Your task to perform on an android device: open app "Lyft - Rideshare, Bikes, Scooters & Transit" Image 0: 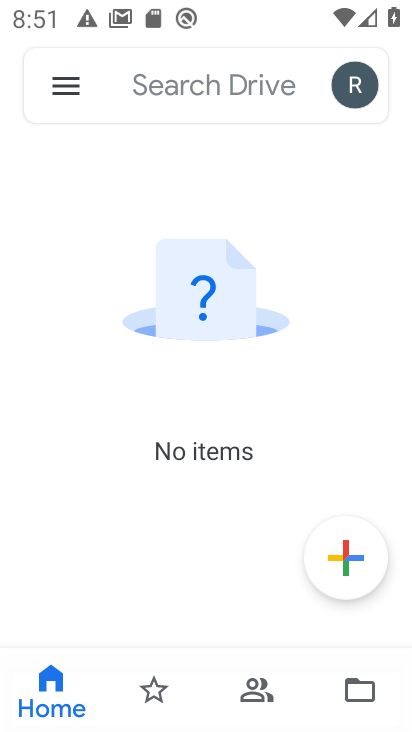
Step 0: press home button
Your task to perform on an android device: open app "Lyft - Rideshare, Bikes, Scooters & Transit" Image 1: 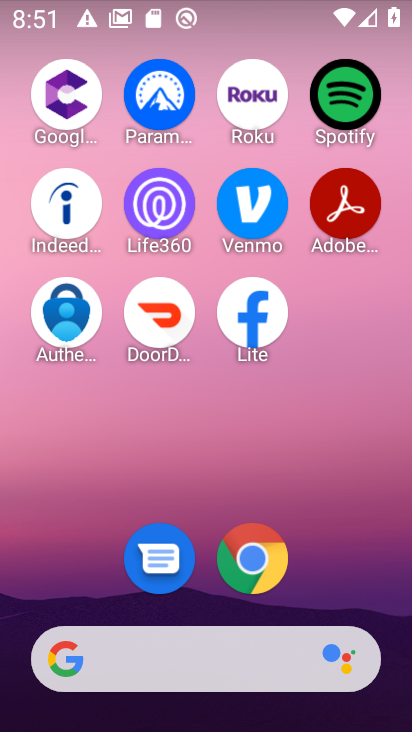
Step 1: drag from (225, 628) to (205, 140)
Your task to perform on an android device: open app "Lyft - Rideshare, Bikes, Scooters & Transit" Image 2: 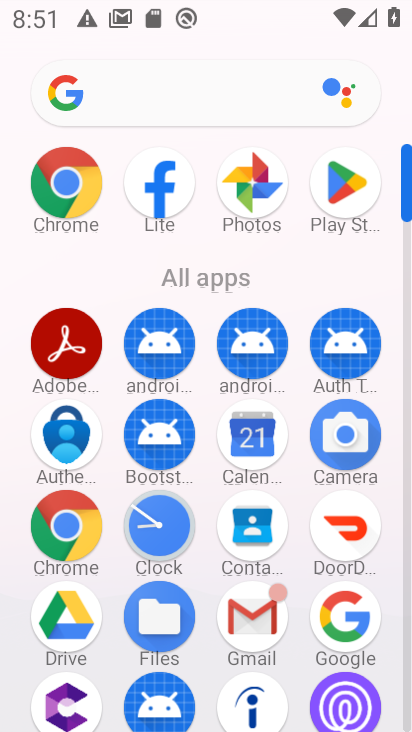
Step 2: click (321, 205)
Your task to perform on an android device: open app "Lyft - Rideshare, Bikes, Scooters & Transit" Image 3: 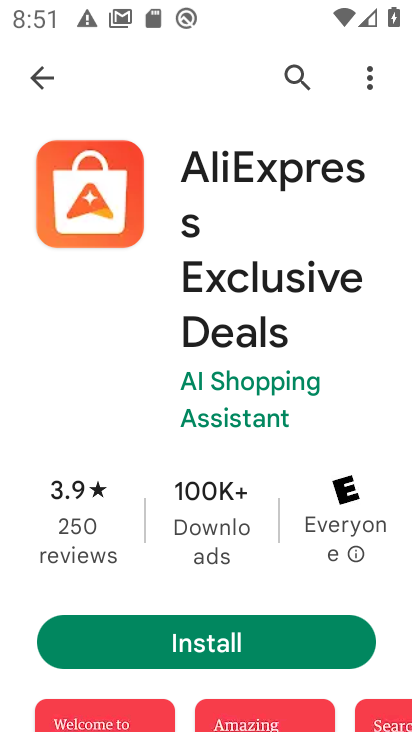
Step 3: press home button
Your task to perform on an android device: open app "Lyft - Rideshare, Bikes, Scooters & Transit" Image 4: 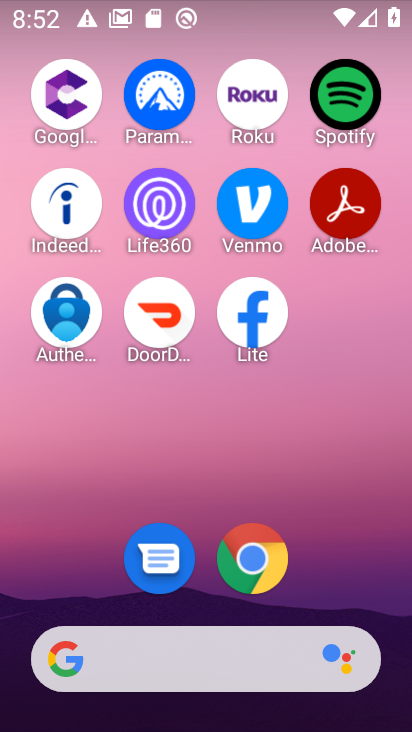
Step 4: drag from (178, 670) to (203, 290)
Your task to perform on an android device: open app "Lyft - Rideshare, Bikes, Scooters & Transit" Image 5: 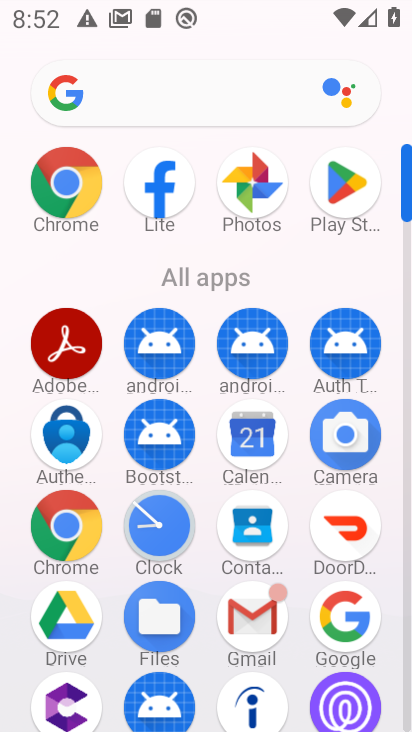
Step 5: click (343, 170)
Your task to perform on an android device: open app "Lyft - Rideshare, Bikes, Scooters & Transit" Image 6: 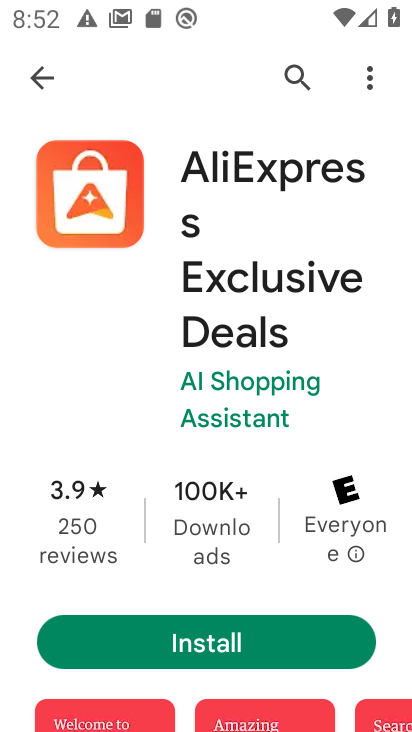
Step 6: click (305, 96)
Your task to perform on an android device: open app "Lyft - Rideshare, Bikes, Scooters & Transit" Image 7: 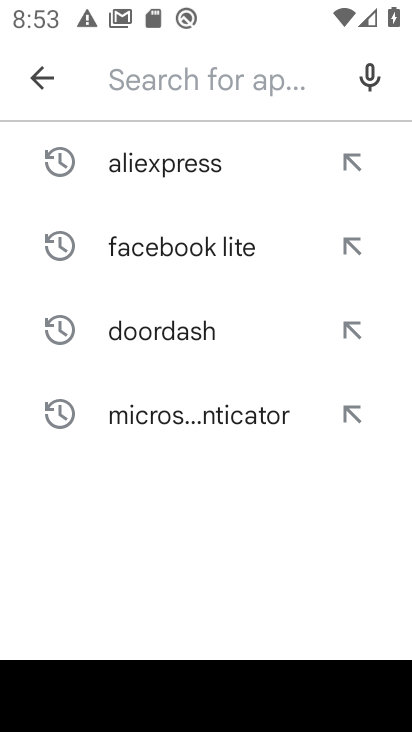
Step 7: type "lyft"
Your task to perform on an android device: open app "Lyft - Rideshare, Bikes, Scooters & Transit" Image 8: 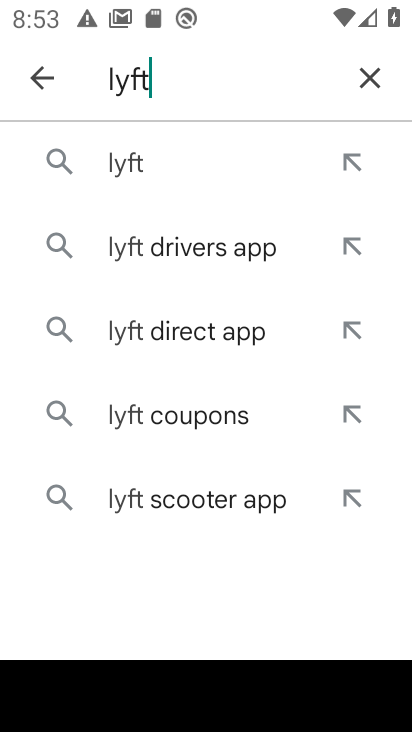
Step 8: click (102, 160)
Your task to perform on an android device: open app "Lyft - Rideshare, Bikes, Scooters & Transit" Image 9: 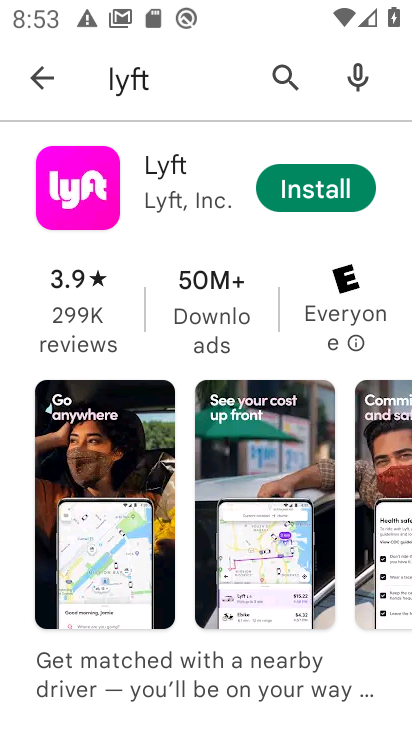
Step 9: task complete